Your task to perform on an android device: Go to Google maps Image 0: 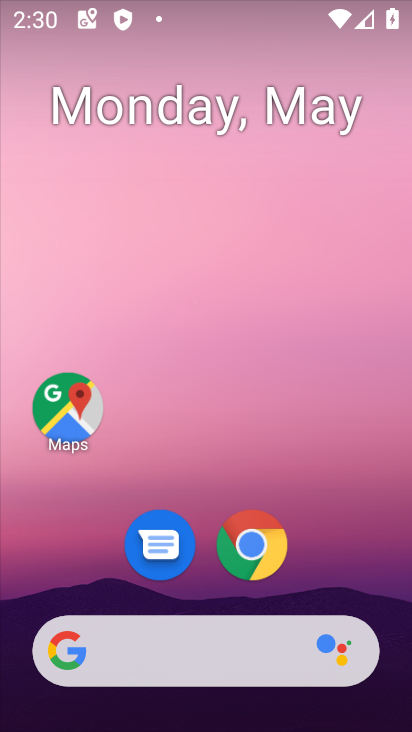
Step 0: drag from (286, 707) to (265, 11)
Your task to perform on an android device: Go to Google maps Image 1: 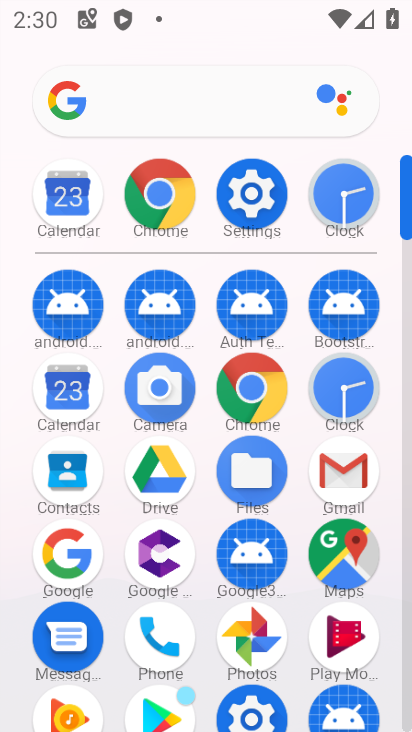
Step 1: click (345, 560)
Your task to perform on an android device: Go to Google maps Image 2: 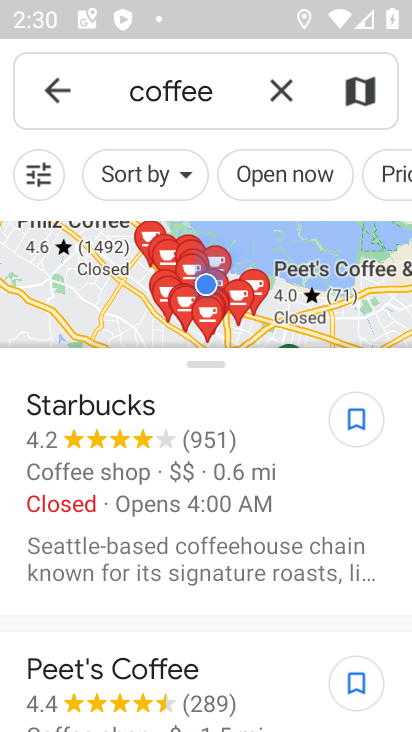
Step 2: click (287, 84)
Your task to perform on an android device: Go to Google maps Image 3: 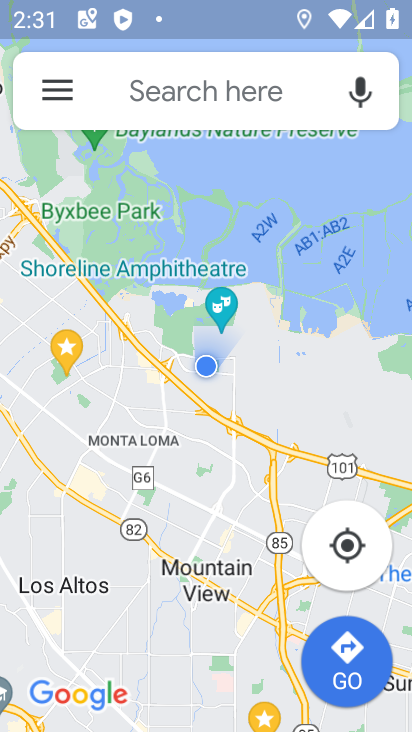
Step 3: task complete